Your task to perform on an android device: turn off notifications settings in the gmail app Image 0: 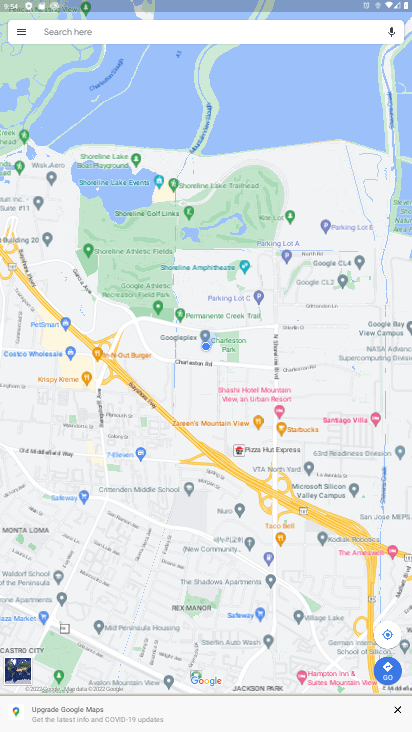
Step 0: press home button
Your task to perform on an android device: turn off notifications settings in the gmail app Image 1: 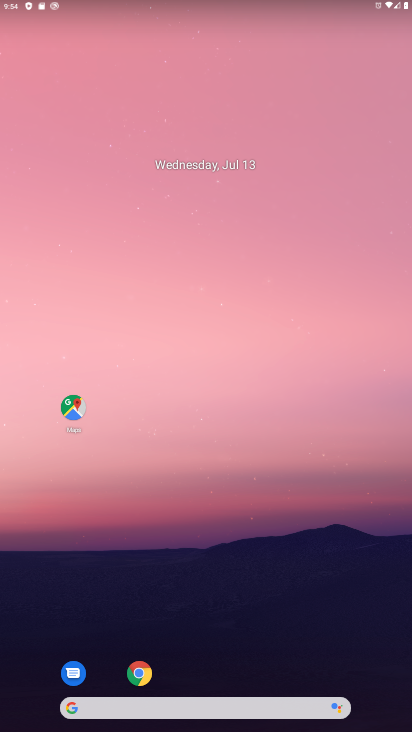
Step 1: drag from (215, 690) to (240, 329)
Your task to perform on an android device: turn off notifications settings in the gmail app Image 2: 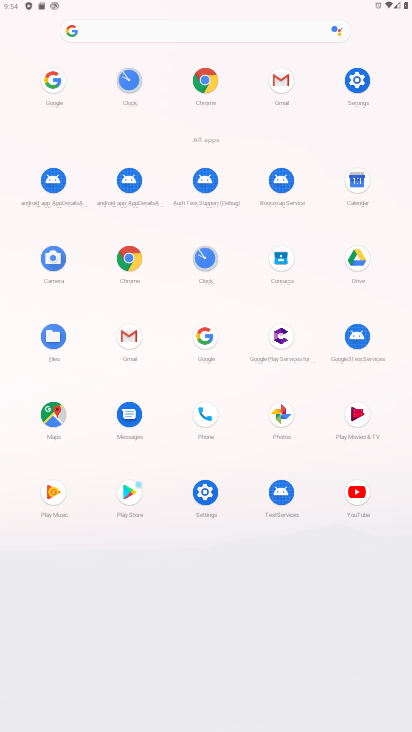
Step 2: click (286, 80)
Your task to perform on an android device: turn off notifications settings in the gmail app Image 3: 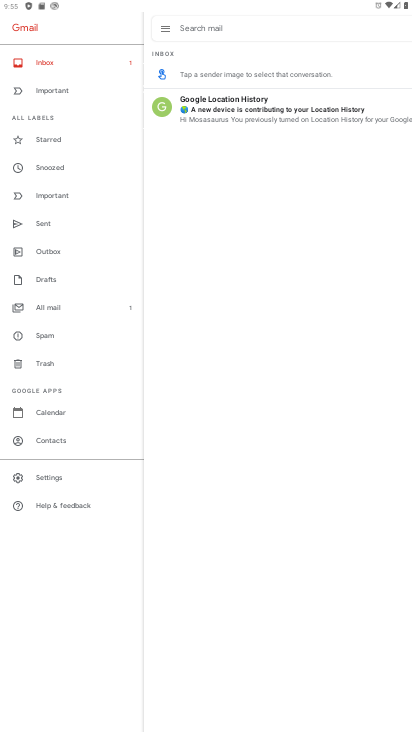
Step 3: click (47, 483)
Your task to perform on an android device: turn off notifications settings in the gmail app Image 4: 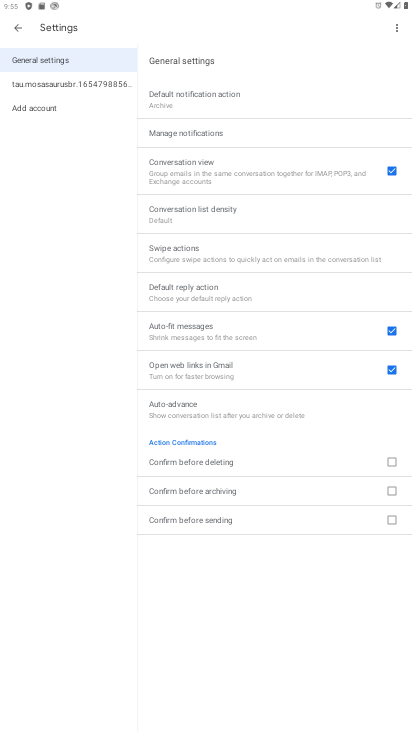
Step 4: click (190, 131)
Your task to perform on an android device: turn off notifications settings in the gmail app Image 5: 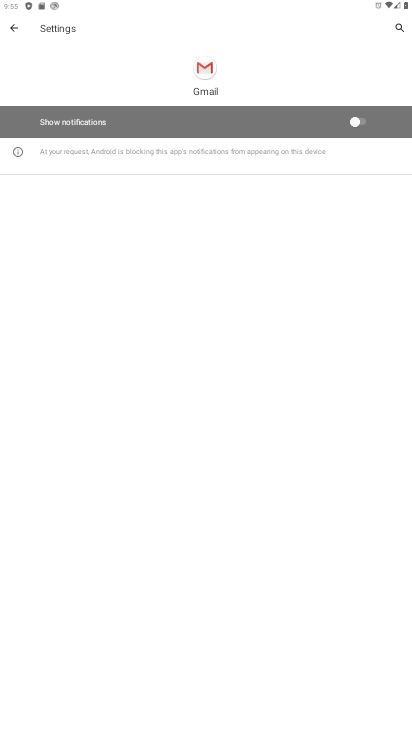
Step 5: task complete